Your task to perform on an android device: Show me the alarms in the clock app Image 0: 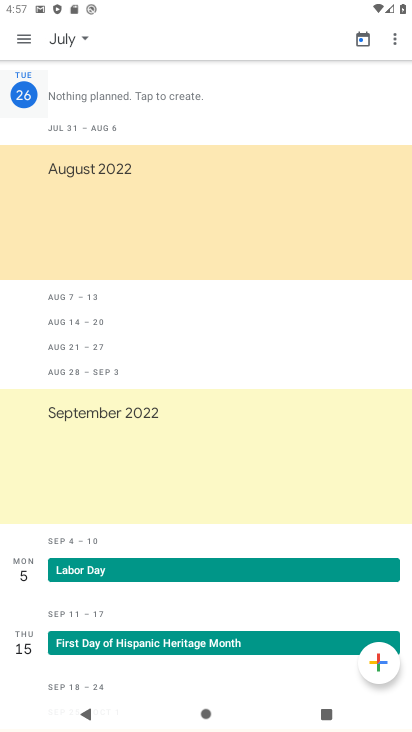
Step 0: press home button
Your task to perform on an android device: Show me the alarms in the clock app Image 1: 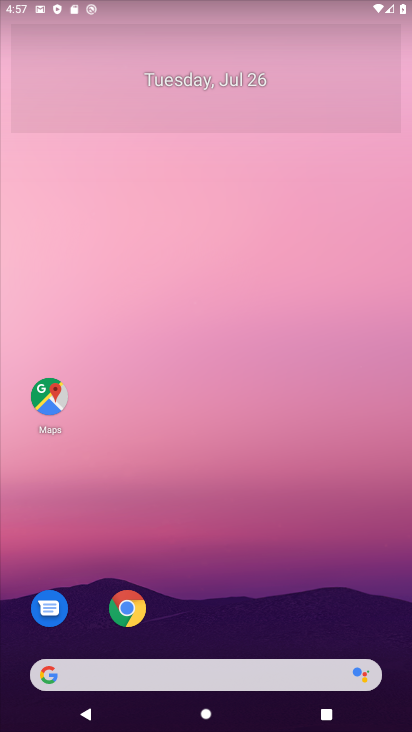
Step 1: drag from (208, 639) to (212, 203)
Your task to perform on an android device: Show me the alarms in the clock app Image 2: 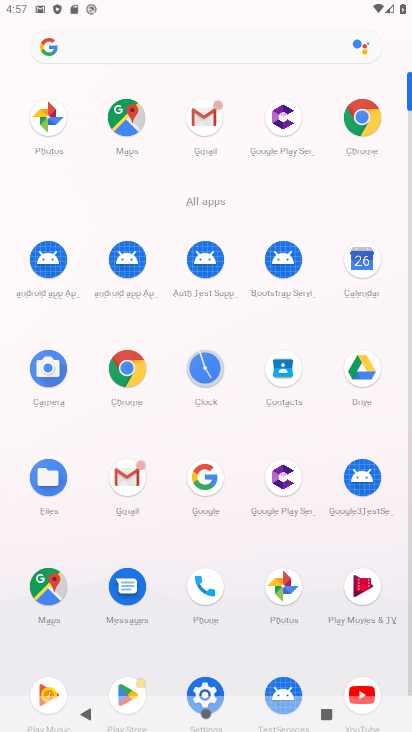
Step 2: click (214, 375)
Your task to perform on an android device: Show me the alarms in the clock app Image 3: 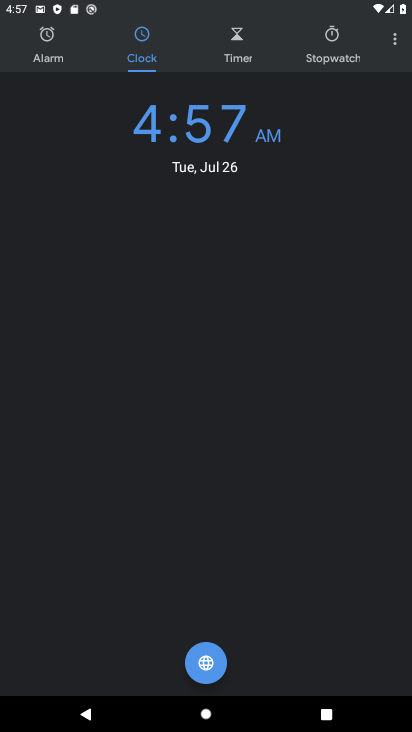
Step 3: click (47, 46)
Your task to perform on an android device: Show me the alarms in the clock app Image 4: 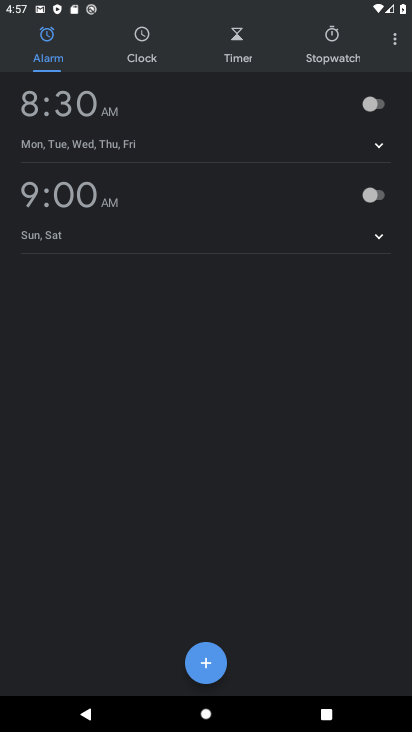
Step 4: task complete